Your task to perform on an android device: change the upload size in google photos Image 0: 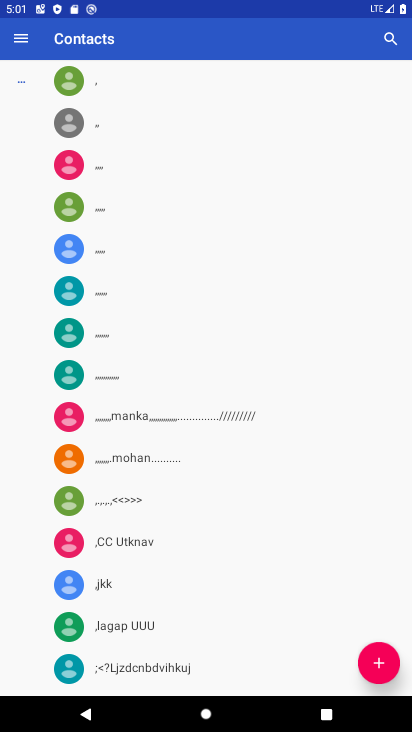
Step 0: press back button
Your task to perform on an android device: change the upload size in google photos Image 1: 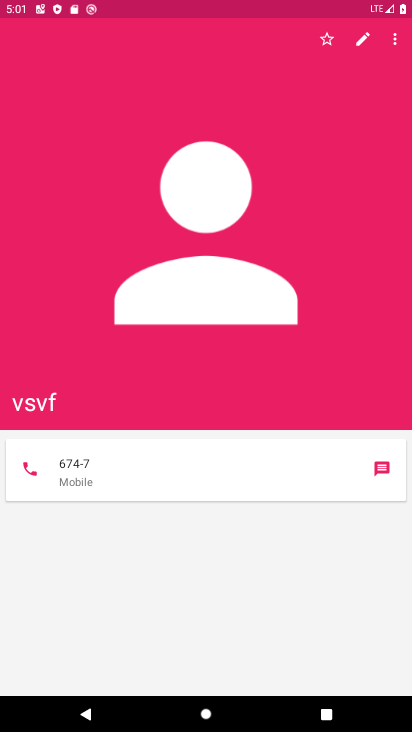
Step 1: press back button
Your task to perform on an android device: change the upload size in google photos Image 2: 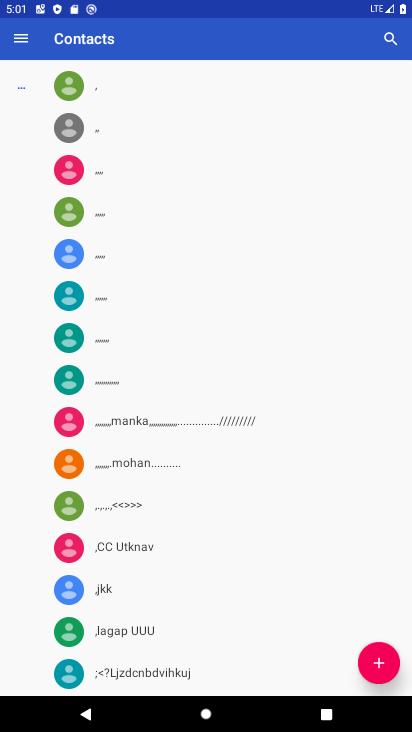
Step 2: press home button
Your task to perform on an android device: change the upload size in google photos Image 3: 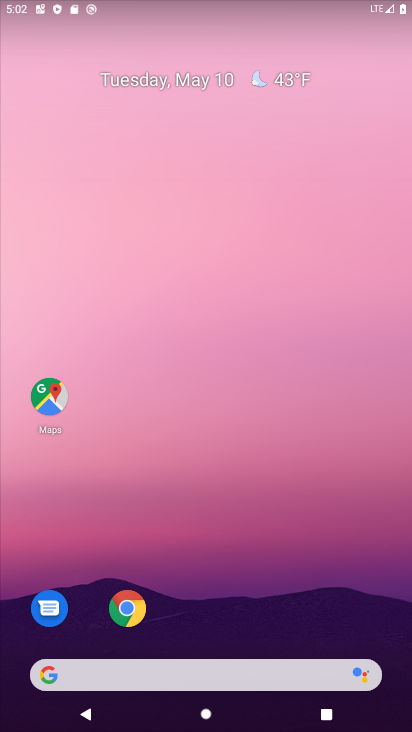
Step 3: drag from (195, 631) to (252, 53)
Your task to perform on an android device: change the upload size in google photos Image 4: 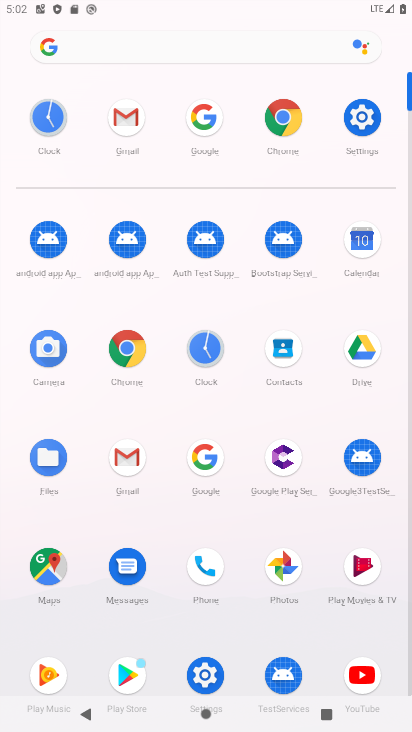
Step 4: click (284, 562)
Your task to perform on an android device: change the upload size in google photos Image 5: 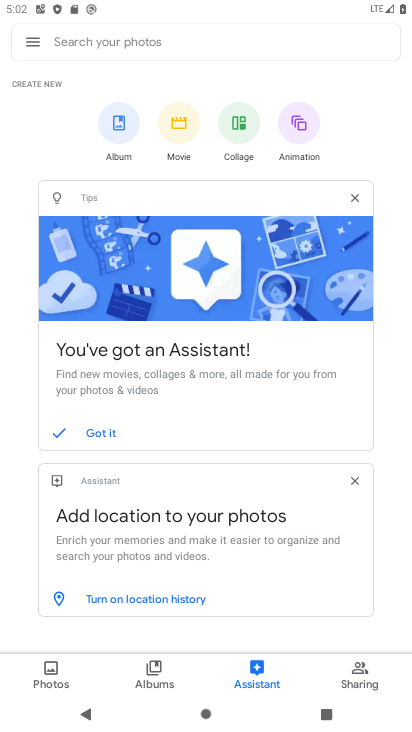
Step 5: click (32, 41)
Your task to perform on an android device: change the upload size in google photos Image 6: 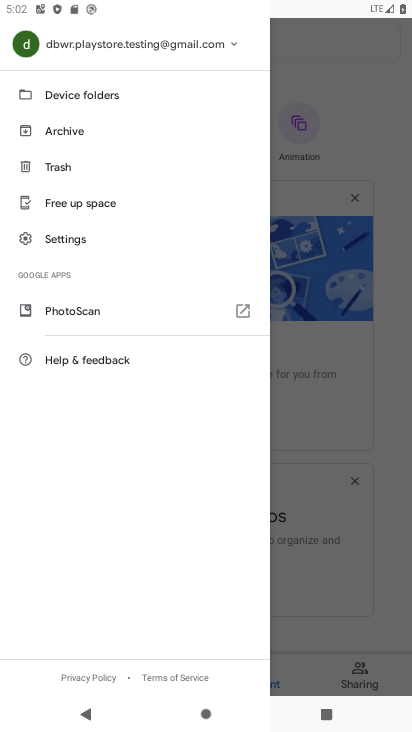
Step 6: click (68, 247)
Your task to perform on an android device: change the upload size in google photos Image 7: 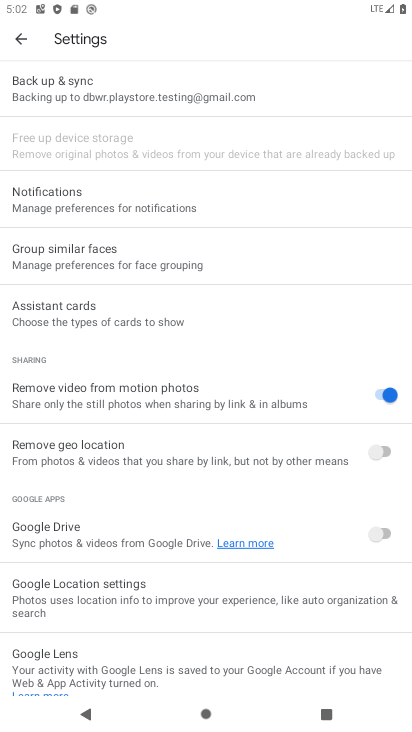
Step 7: click (119, 95)
Your task to perform on an android device: change the upload size in google photos Image 8: 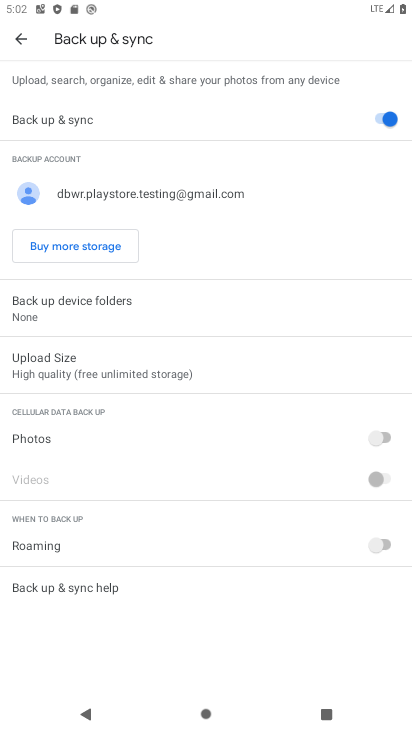
Step 8: click (118, 367)
Your task to perform on an android device: change the upload size in google photos Image 9: 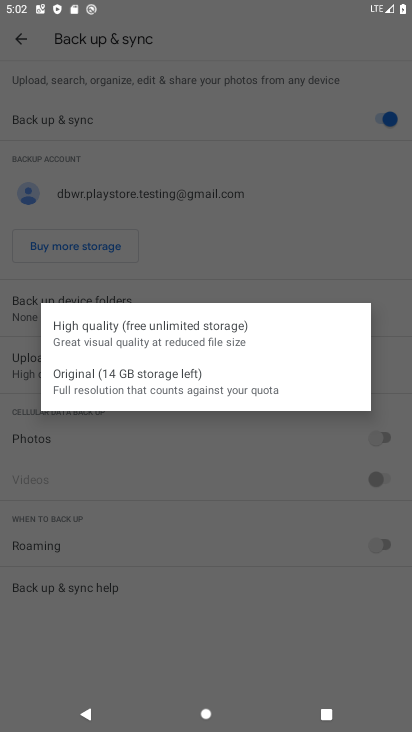
Step 9: click (194, 486)
Your task to perform on an android device: change the upload size in google photos Image 10: 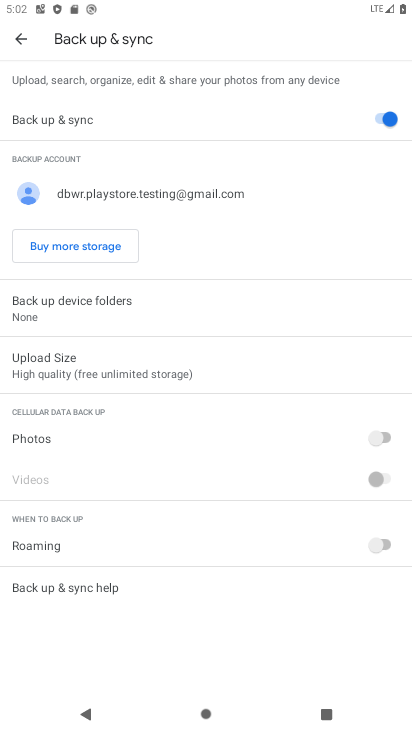
Step 10: click (101, 372)
Your task to perform on an android device: change the upload size in google photos Image 11: 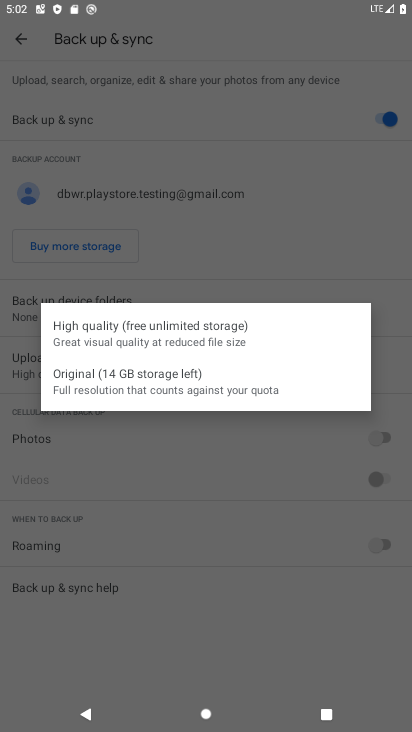
Step 11: click (139, 385)
Your task to perform on an android device: change the upload size in google photos Image 12: 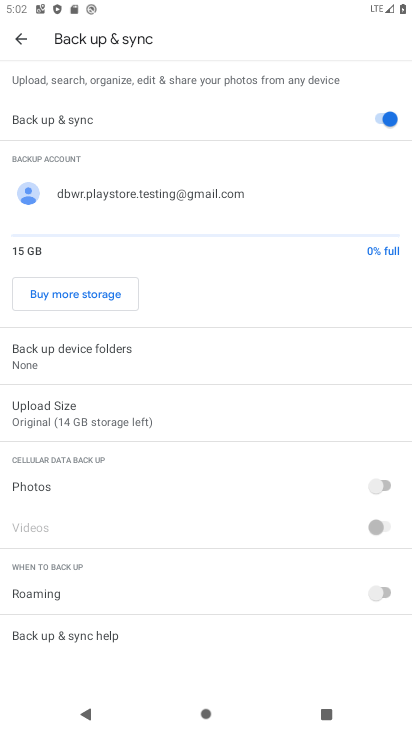
Step 12: task complete